Your task to perform on an android device: find which apps use the phone's location Image 0: 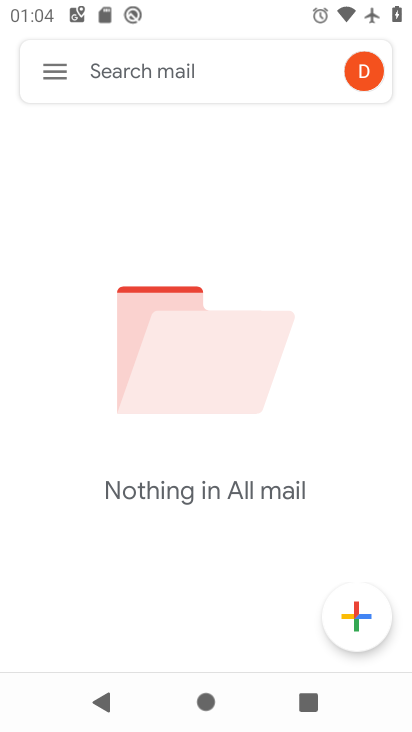
Step 0: press home button
Your task to perform on an android device: find which apps use the phone's location Image 1: 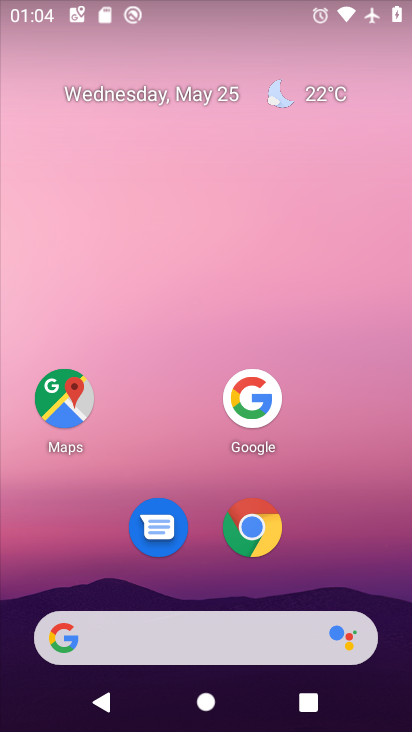
Step 1: drag from (201, 632) to (290, 199)
Your task to perform on an android device: find which apps use the phone's location Image 2: 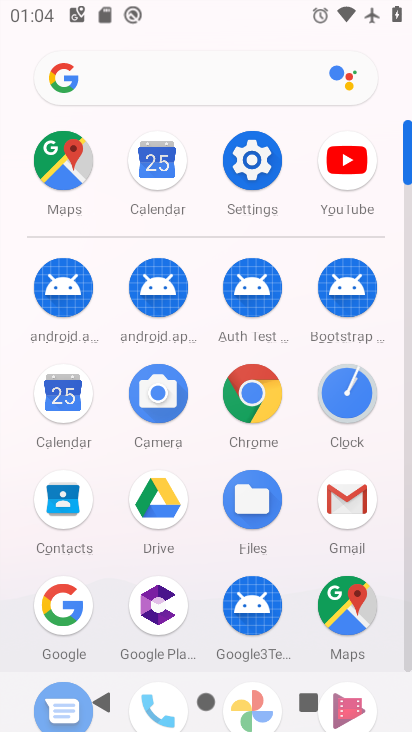
Step 2: click (247, 172)
Your task to perform on an android device: find which apps use the phone's location Image 3: 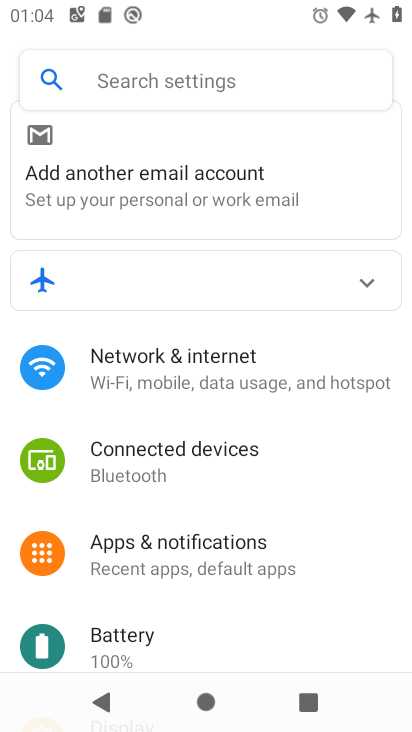
Step 3: drag from (251, 577) to (378, 98)
Your task to perform on an android device: find which apps use the phone's location Image 4: 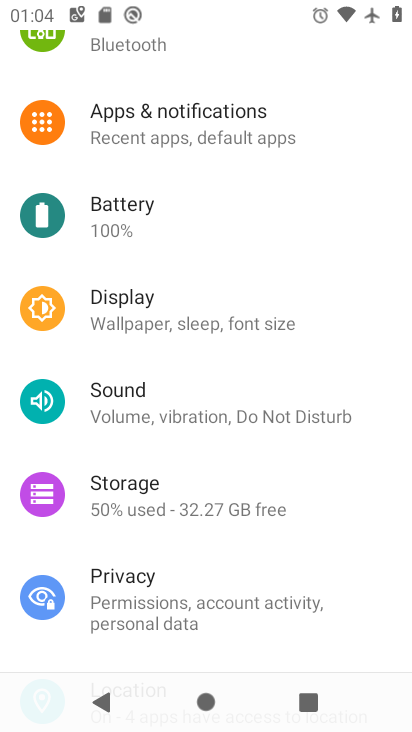
Step 4: drag from (230, 424) to (350, 76)
Your task to perform on an android device: find which apps use the phone's location Image 5: 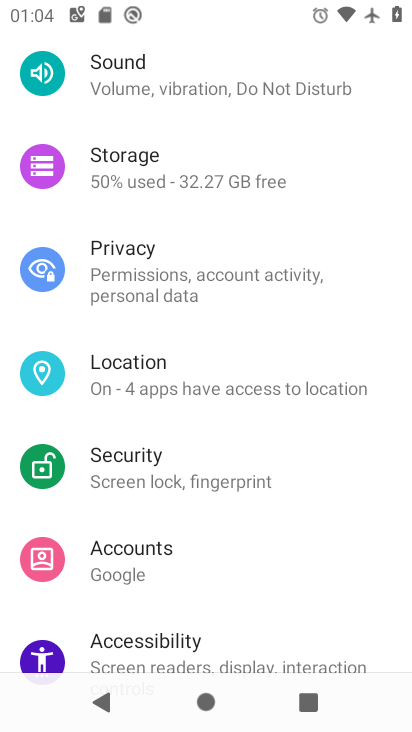
Step 5: click (158, 368)
Your task to perform on an android device: find which apps use the phone's location Image 6: 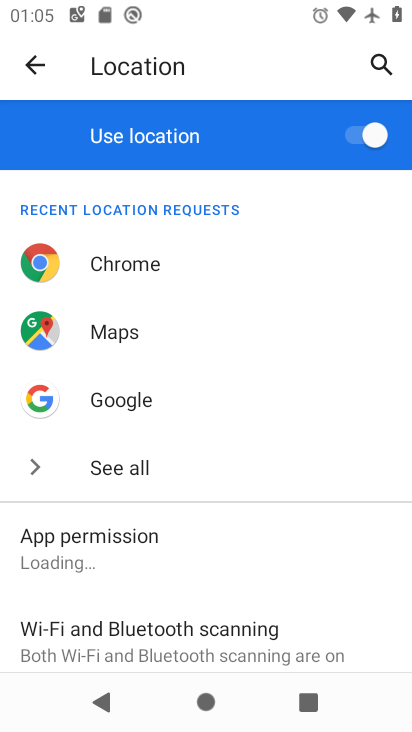
Step 6: drag from (190, 586) to (306, 261)
Your task to perform on an android device: find which apps use the phone's location Image 7: 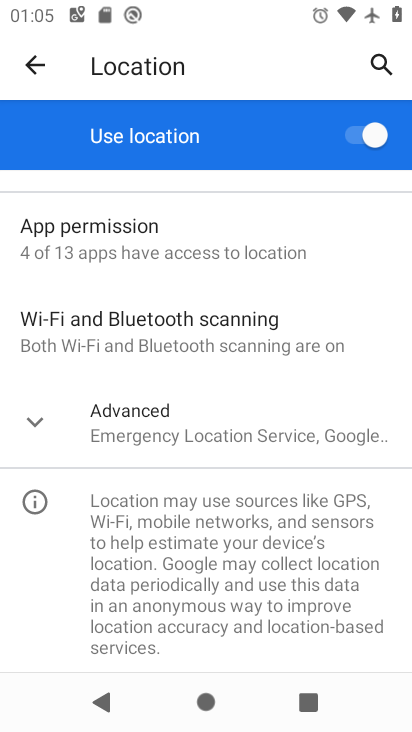
Step 7: click (123, 246)
Your task to perform on an android device: find which apps use the phone's location Image 8: 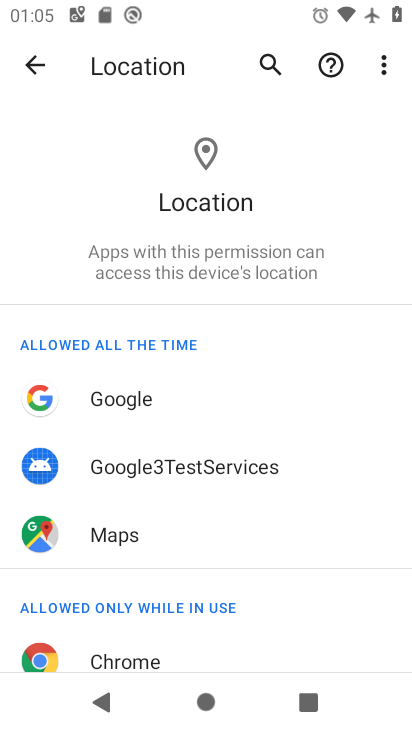
Step 8: drag from (212, 592) to (379, 153)
Your task to perform on an android device: find which apps use the phone's location Image 9: 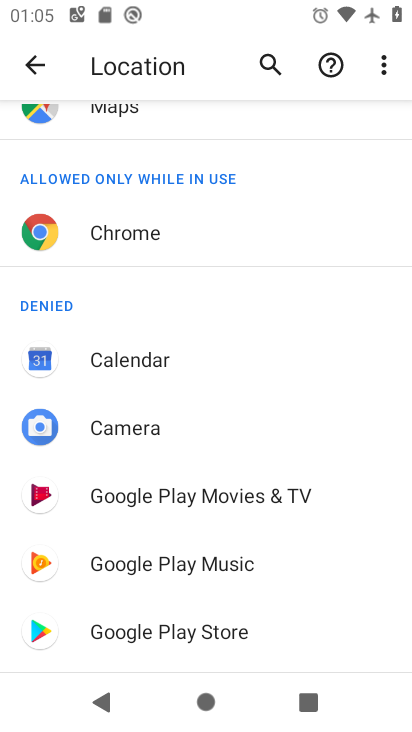
Step 9: drag from (264, 646) to (373, 72)
Your task to perform on an android device: find which apps use the phone's location Image 10: 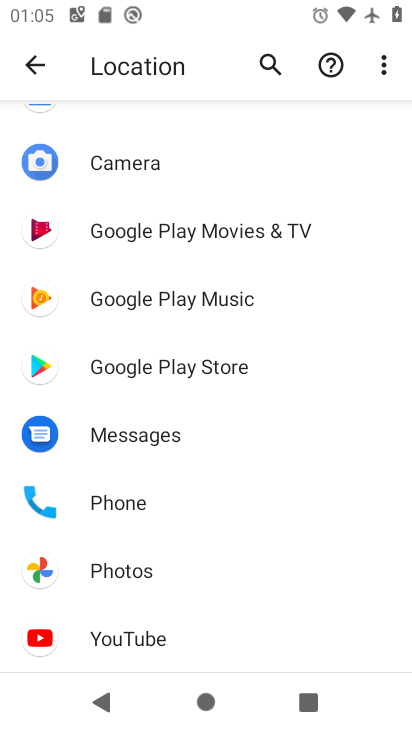
Step 10: click (132, 503)
Your task to perform on an android device: find which apps use the phone's location Image 11: 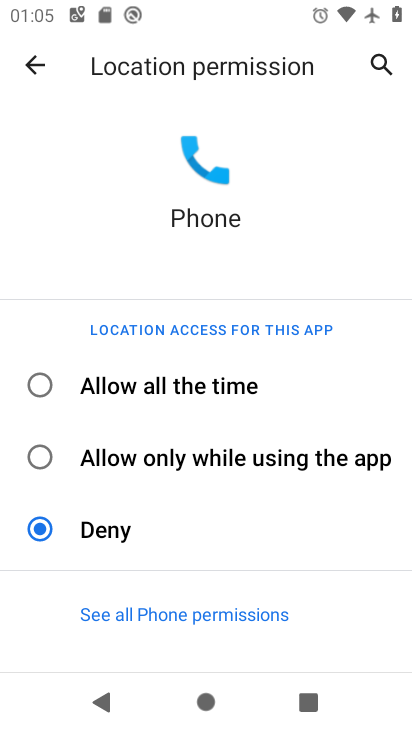
Step 11: task complete